Your task to perform on an android device: Go to Yahoo.com Image 0: 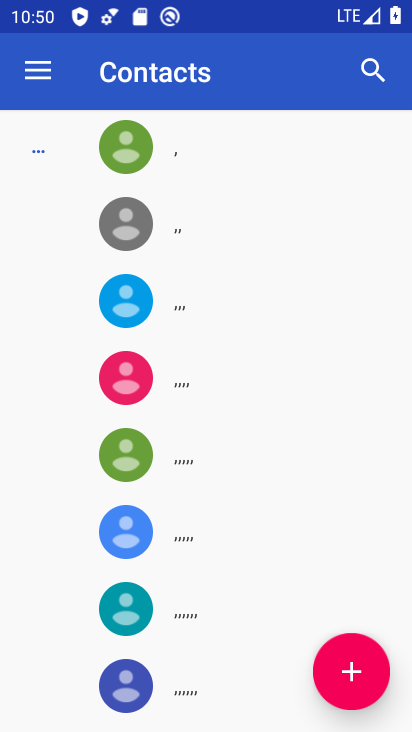
Step 0: press home button
Your task to perform on an android device: Go to Yahoo.com Image 1: 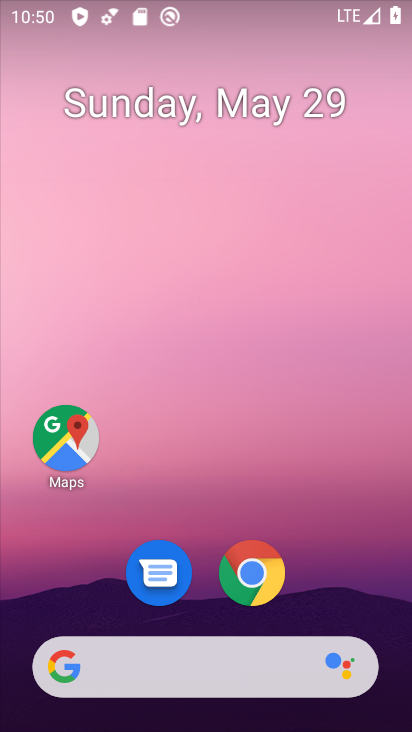
Step 1: click (271, 569)
Your task to perform on an android device: Go to Yahoo.com Image 2: 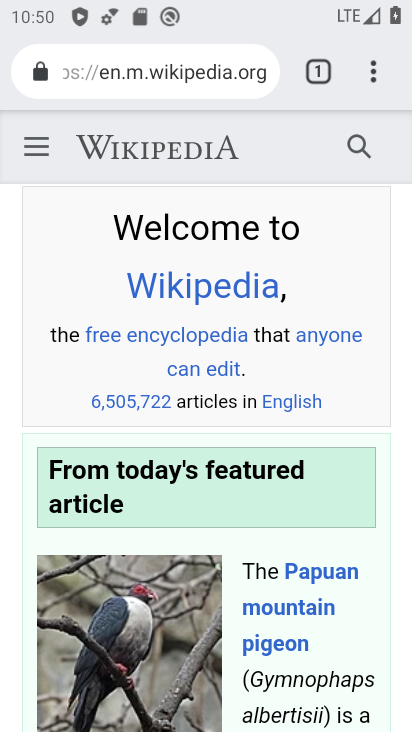
Step 2: click (310, 59)
Your task to perform on an android device: Go to Yahoo.com Image 3: 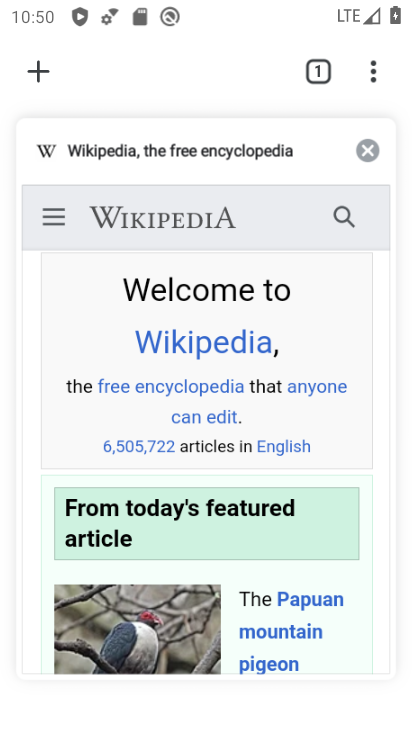
Step 3: click (17, 75)
Your task to perform on an android device: Go to Yahoo.com Image 4: 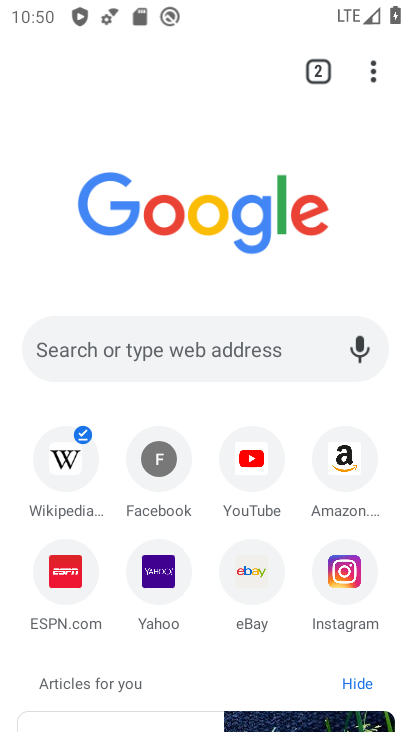
Step 4: click (155, 583)
Your task to perform on an android device: Go to Yahoo.com Image 5: 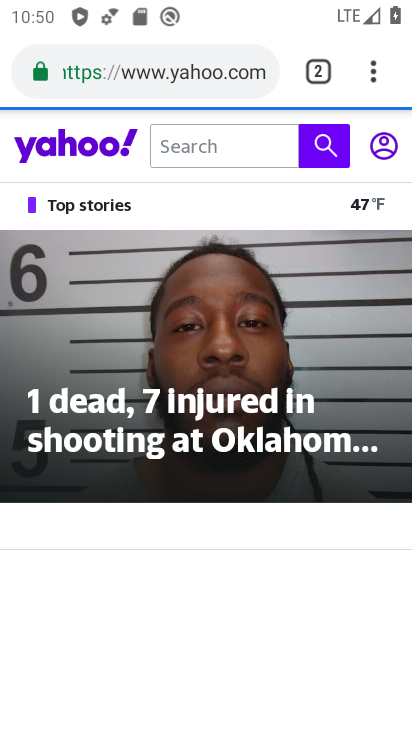
Step 5: task complete